Your task to perform on an android device: Turn off the flashlight Image 0: 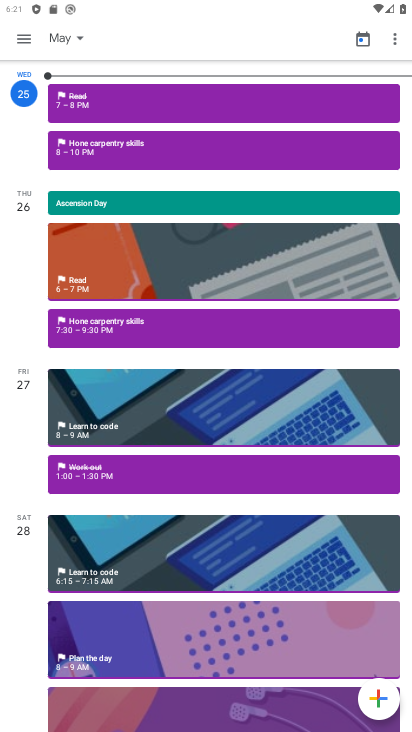
Step 0: press home button
Your task to perform on an android device: Turn off the flashlight Image 1: 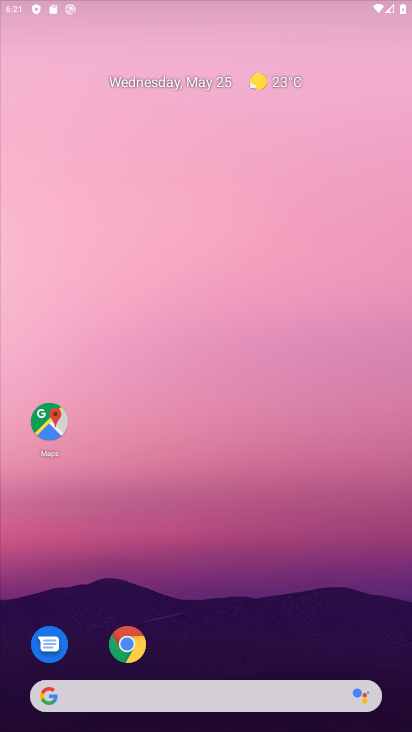
Step 1: drag from (361, 660) to (309, 30)
Your task to perform on an android device: Turn off the flashlight Image 2: 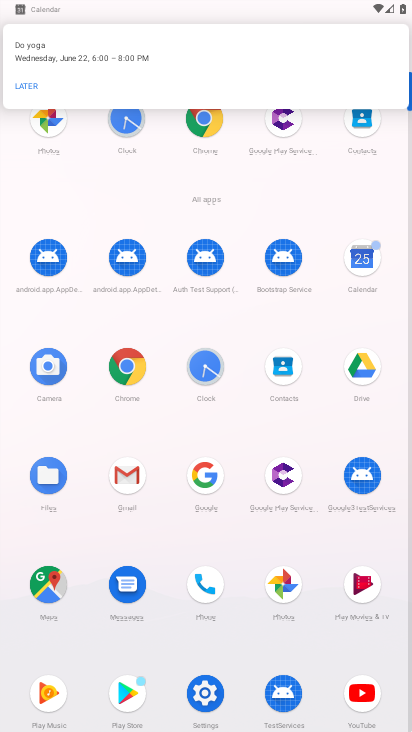
Step 2: click (201, 693)
Your task to perform on an android device: Turn off the flashlight Image 3: 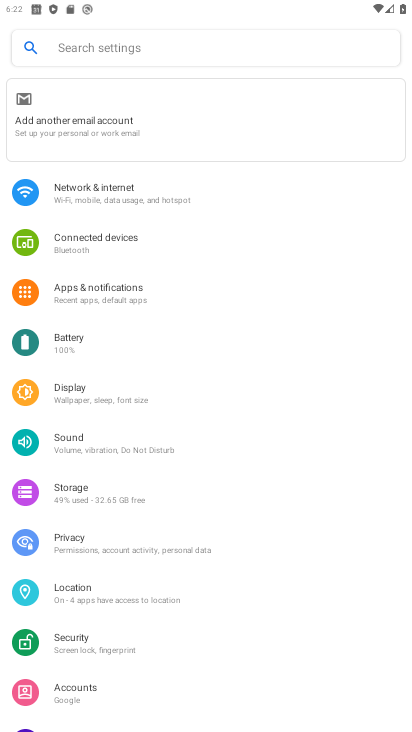
Step 3: task complete